Your task to perform on an android device: Do I have any events this weekend? Image 0: 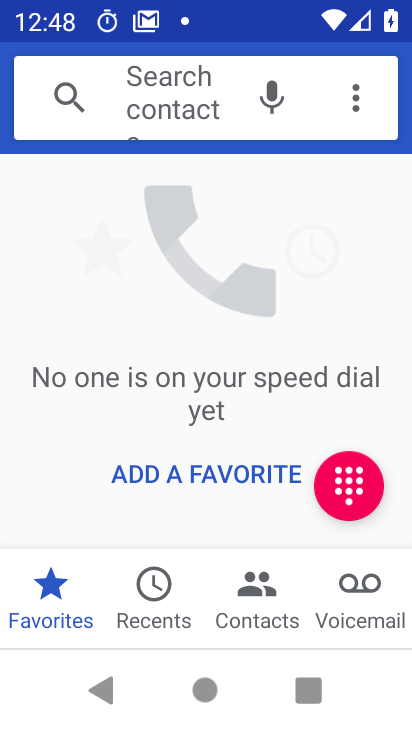
Step 0: press home button
Your task to perform on an android device: Do I have any events this weekend? Image 1: 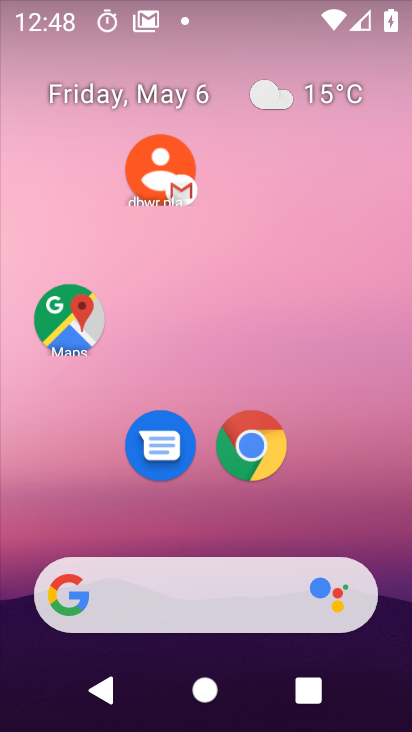
Step 1: drag from (333, 582) to (292, 145)
Your task to perform on an android device: Do I have any events this weekend? Image 2: 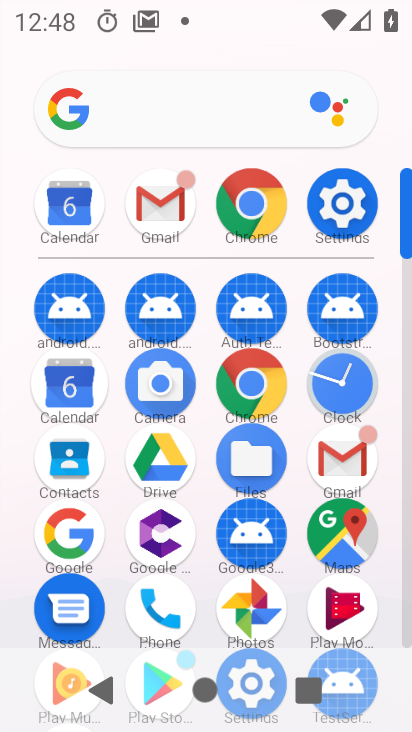
Step 2: click (65, 375)
Your task to perform on an android device: Do I have any events this weekend? Image 3: 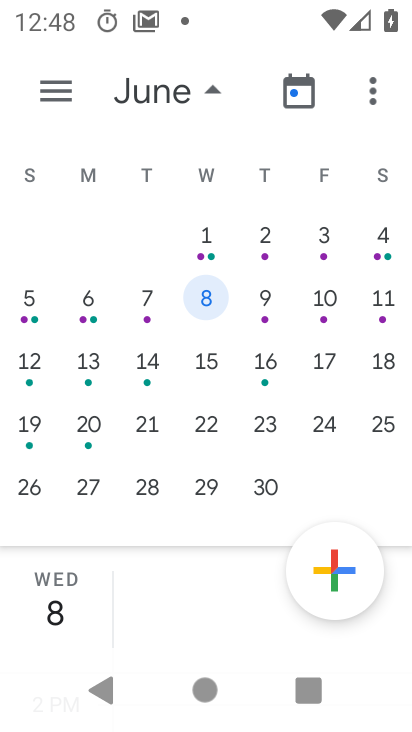
Step 3: drag from (219, 347) to (410, 334)
Your task to perform on an android device: Do I have any events this weekend? Image 4: 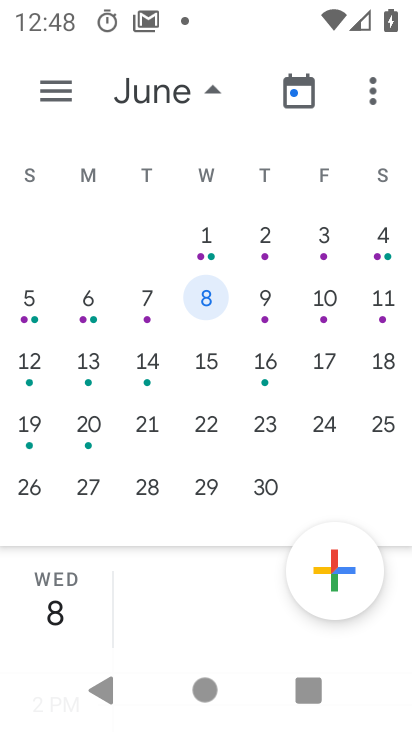
Step 4: drag from (81, 397) to (379, 365)
Your task to perform on an android device: Do I have any events this weekend? Image 5: 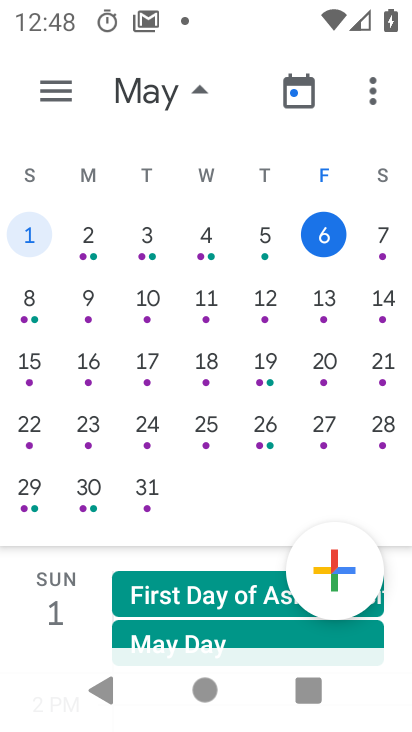
Step 5: drag from (174, 611) to (220, 178)
Your task to perform on an android device: Do I have any events this weekend? Image 6: 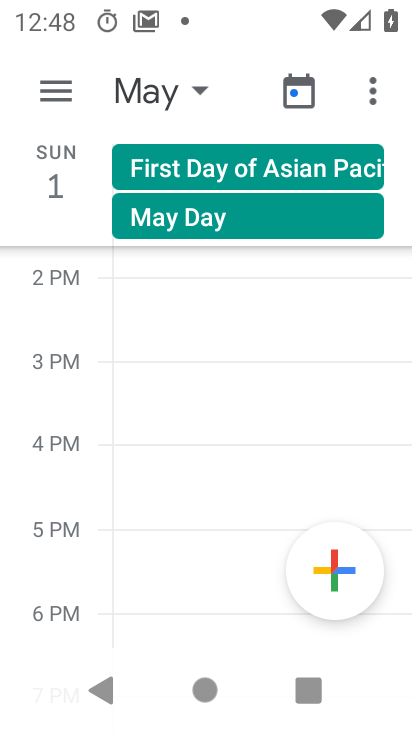
Step 6: drag from (232, 531) to (225, 139)
Your task to perform on an android device: Do I have any events this weekend? Image 7: 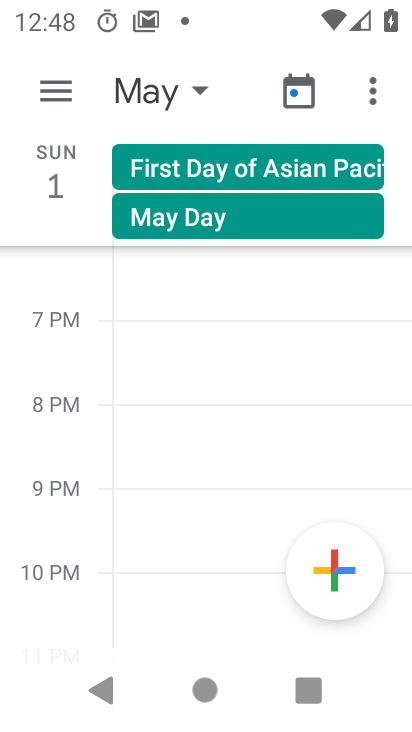
Step 7: click (46, 182)
Your task to perform on an android device: Do I have any events this weekend? Image 8: 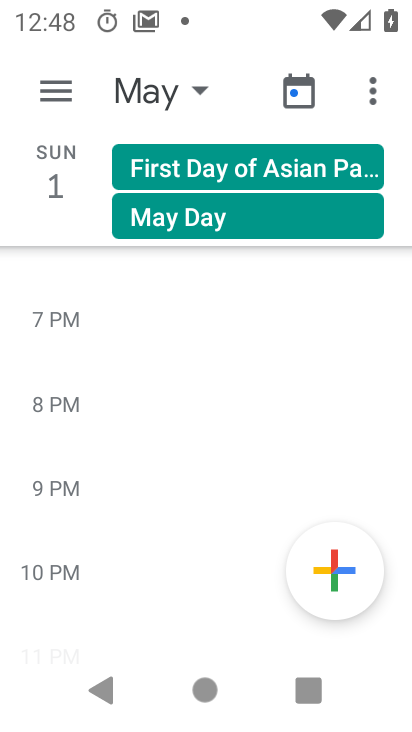
Step 8: task complete